Your task to perform on an android device: change the upload size in google photos Image 0: 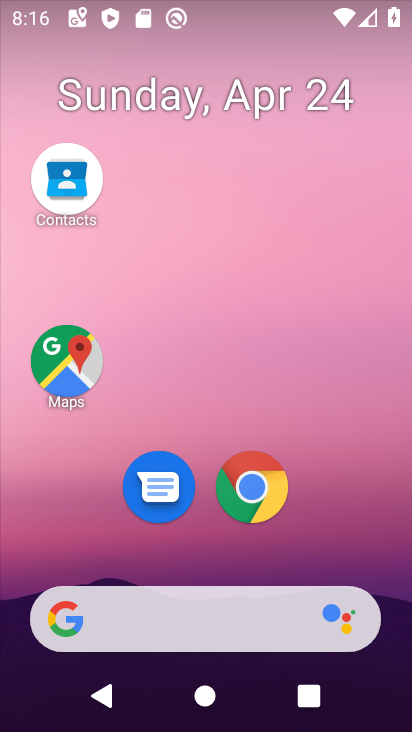
Step 0: drag from (211, 589) to (234, 703)
Your task to perform on an android device: change the upload size in google photos Image 1: 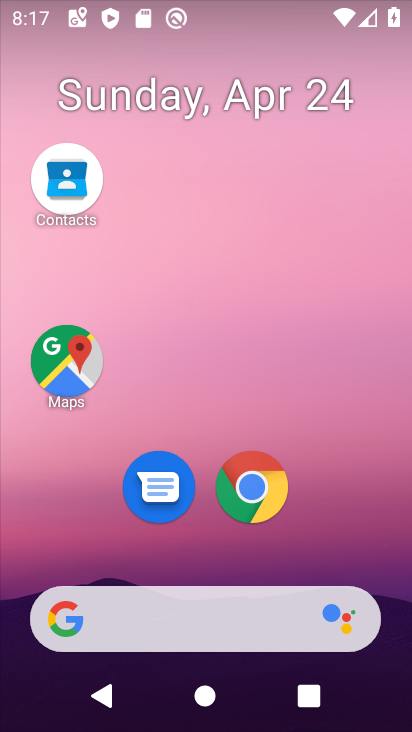
Step 1: drag from (194, 581) to (139, 28)
Your task to perform on an android device: change the upload size in google photos Image 2: 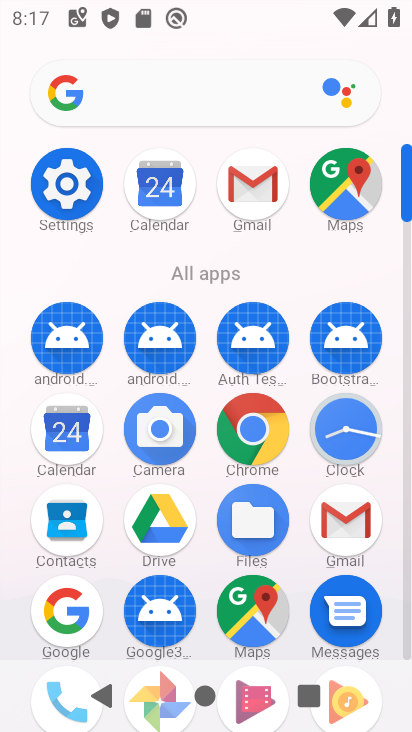
Step 2: drag from (115, 578) to (89, 166)
Your task to perform on an android device: change the upload size in google photos Image 3: 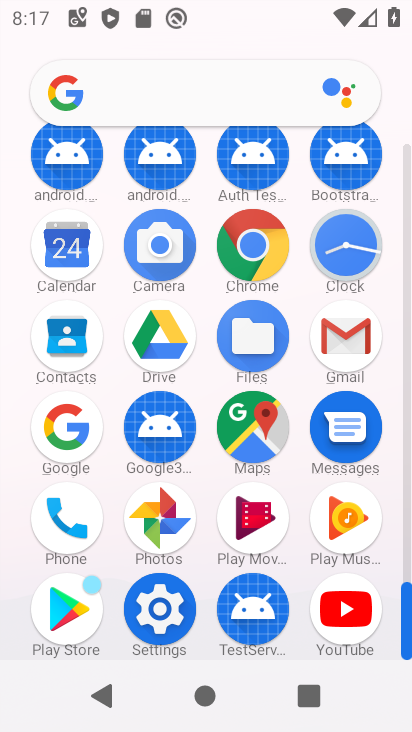
Step 3: click (166, 500)
Your task to perform on an android device: change the upload size in google photos Image 4: 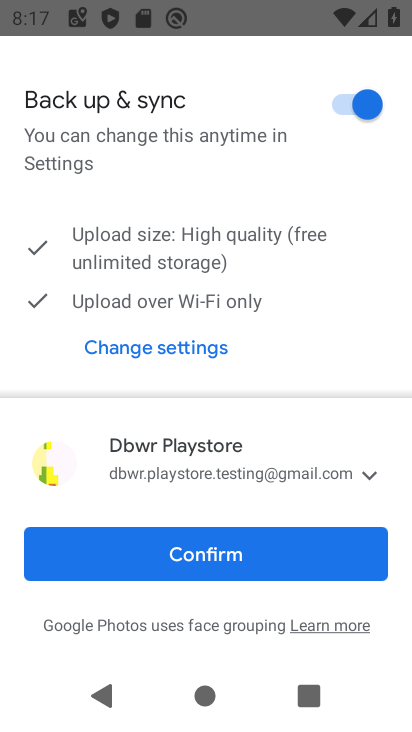
Step 4: click (189, 356)
Your task to perform on an android device: change the upload size in google photos Image 5: 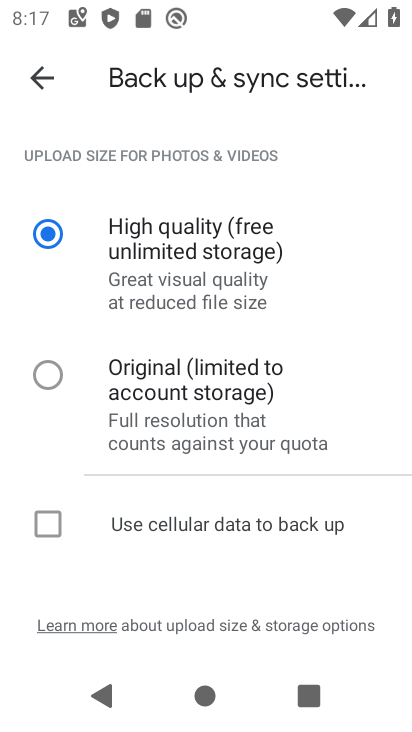
Step 5: click (31, 362)
Your task to perform on an android device: change the upload size in google photos Image 6: 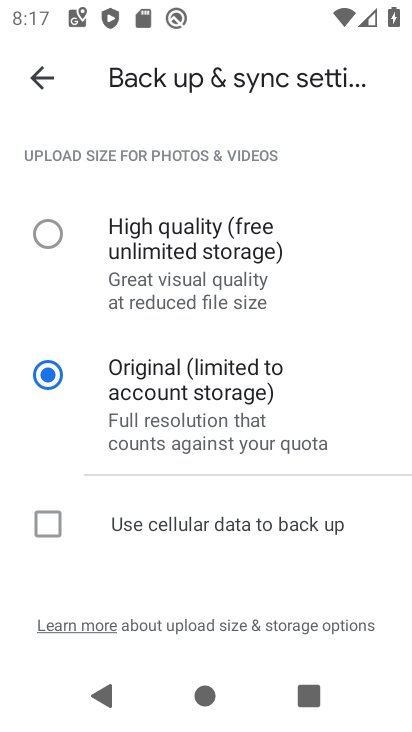
Step 6: task complete